Your task to perform on an android device: Check the weather Image 0: 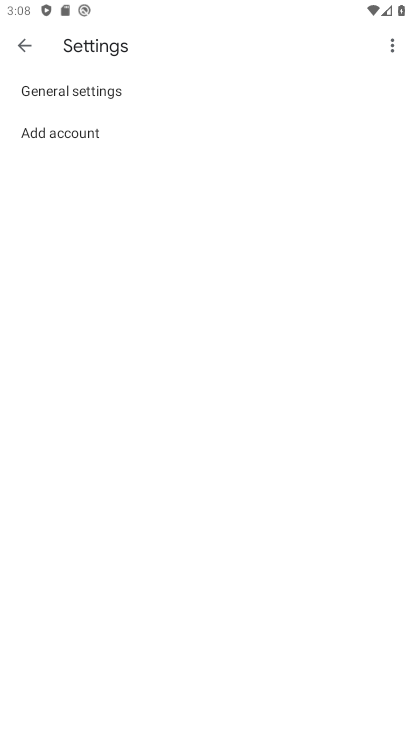
Step 0: drag from (334, 608) to (411, 427)
Your task to perform on an android device: Check the weather Image 1: 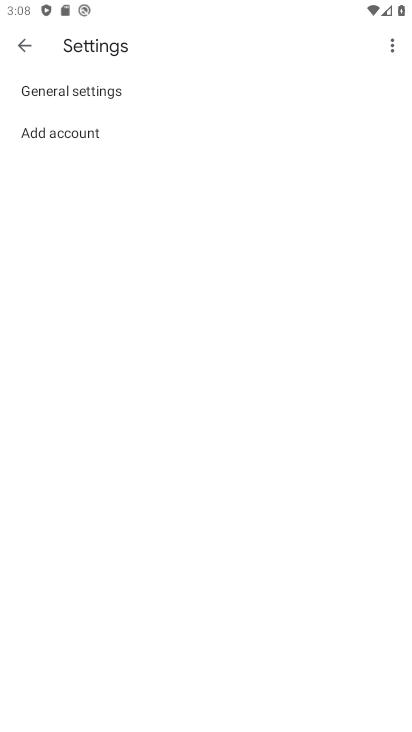
Step 1: press home button
Your task to perform on an android device: Check the weather Image 2: 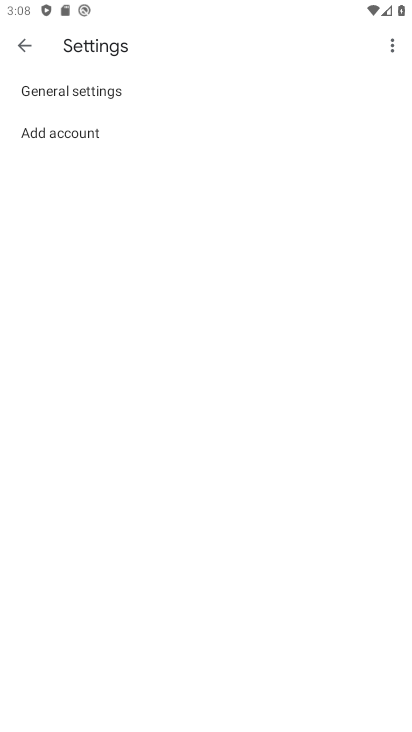
Step 2: drag from (411, 427) to (411, 570)
Your task to perform on an android device: Check the weather Image 3: 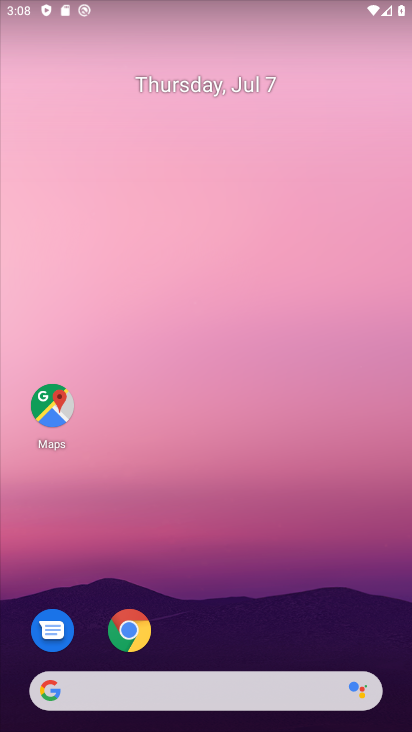
Step 3: click (280, 684)
Your task to perform on an android device: Check the weather Image 4: 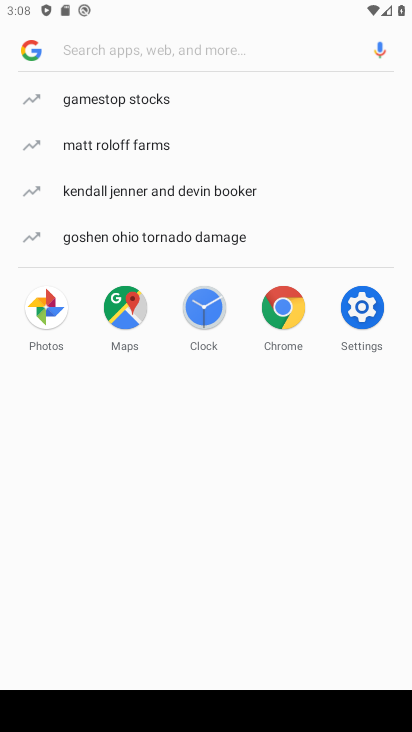
Step 4: type "weather"
Your task to perform on an android device: Check the weather Image 5: 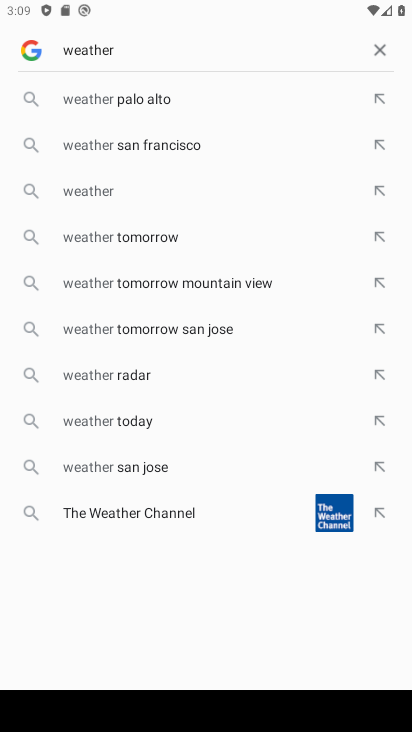
Step 5: click (142, 203)
Your task to perform on an android device: Check the weather Image 6: 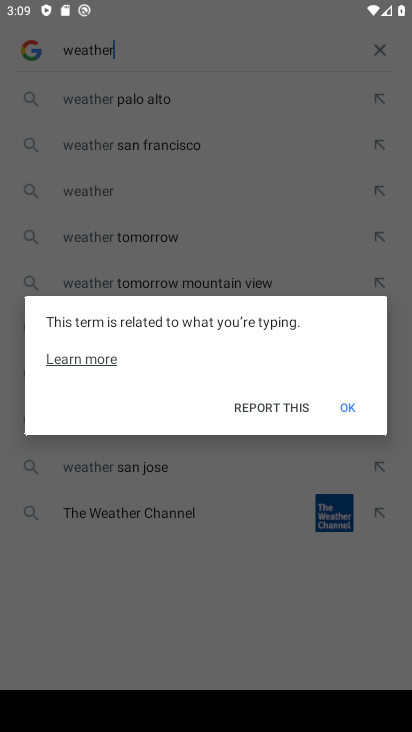
Step 6: click (350, 407)
Your task to perform on an android device: Check the weather Image 7: 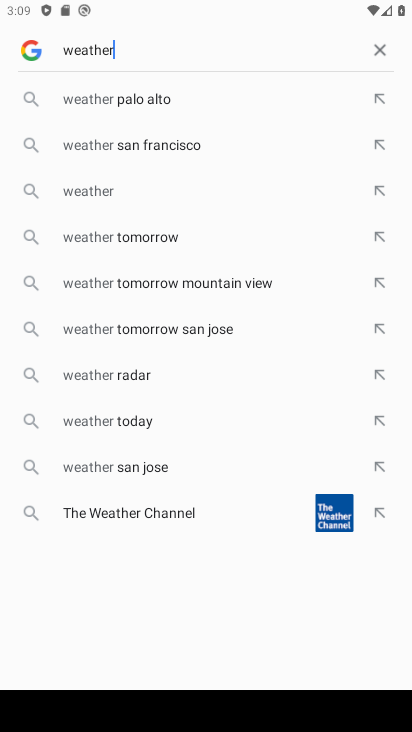
Step 7: click (112, 184)
Your task to perform on an android device: Check the weather Image 8: 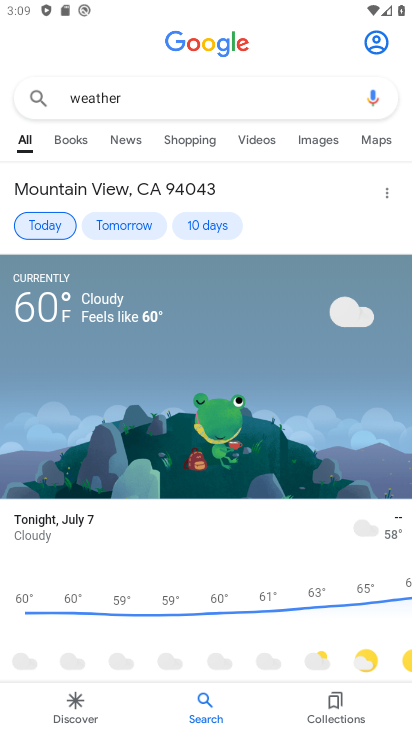
Step 8: task complete